Your task to perform on an android device: turn on sleep mode Image 0: 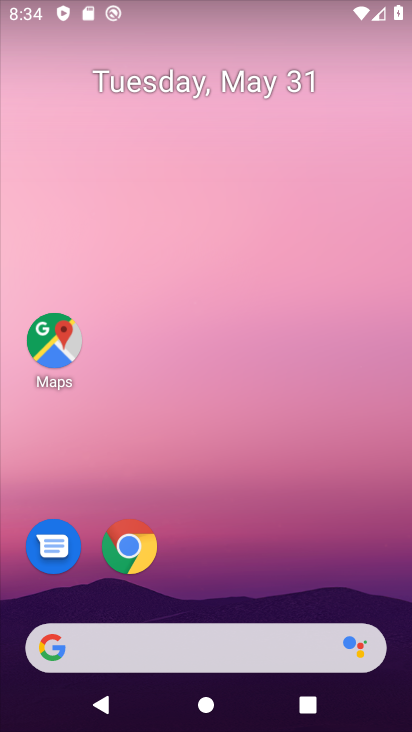
Step 0: drag from (396, 708) to (320, 149)
Your task to perform on an android device: turn on sleep mode Image 1: 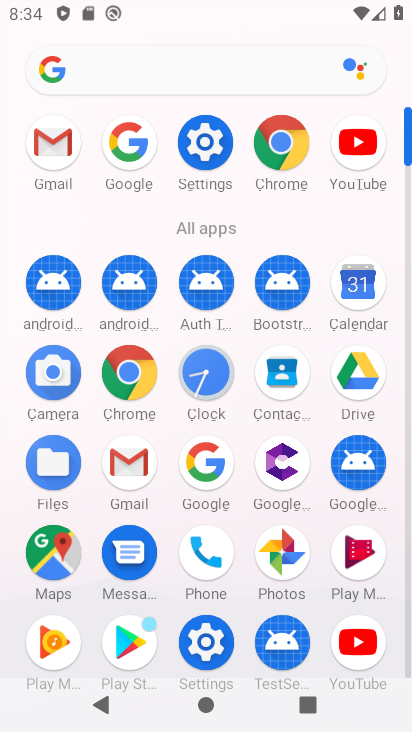
Step 1: click (206, 646)
Your task to perform on an android device: turn on sleep mode Image 2: 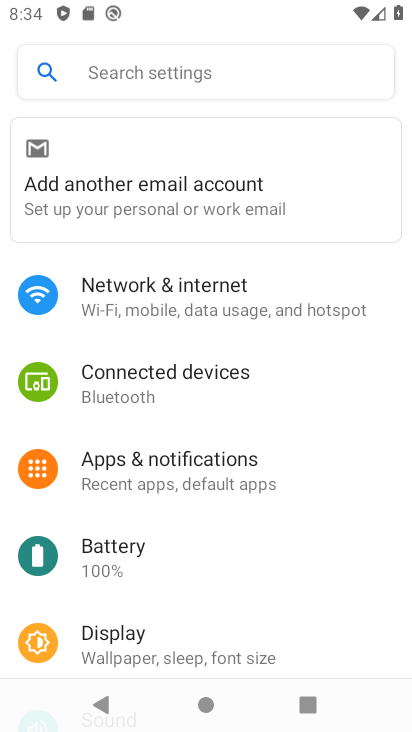
Step 2: click (116, 631)
Your task to perform on an android device: turn on sleep mode Image 3: 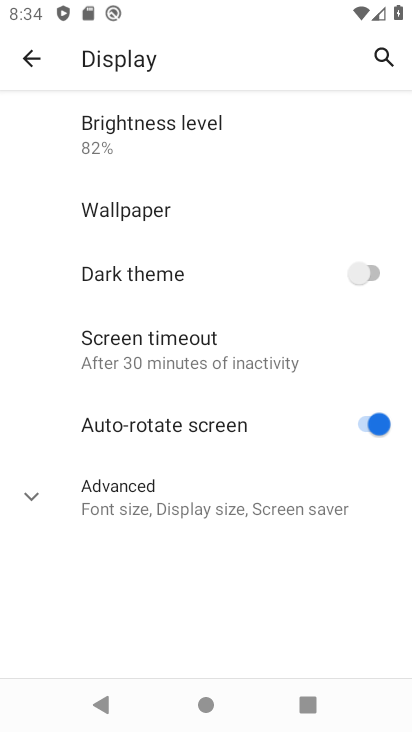
Step 3: click (131, 366)
Your task to perform on an android device: turn on sleep mode Image 4: 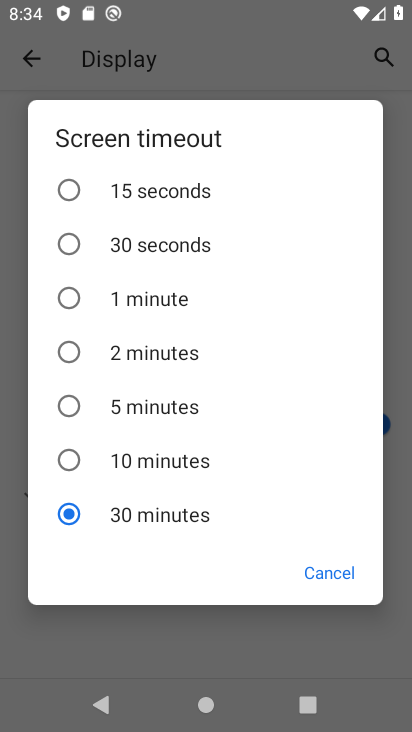
Step 4: task complete